Your task to perform on an android device: Do I have any events today? Image 0: 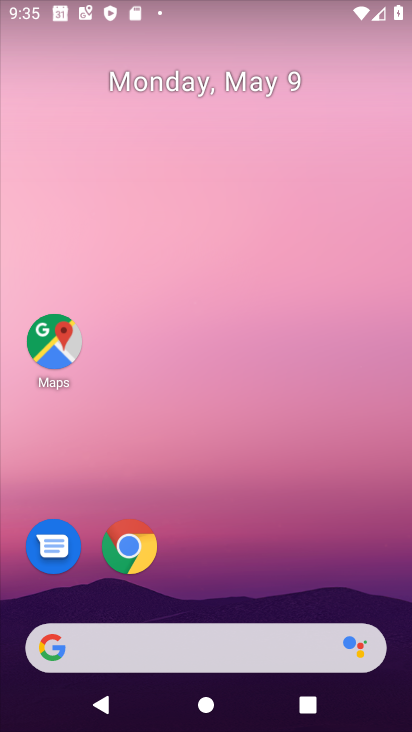
Step 0: drag from (260, 726) to (200, 19)
Your task to perform on an android device: Do I have any events today? Image 1: 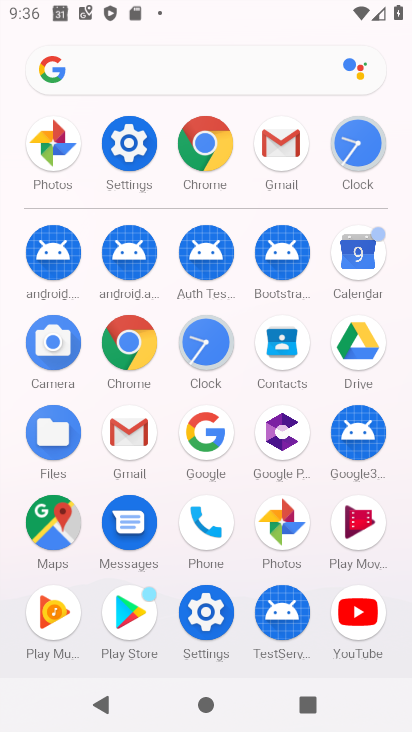
Step 1: click (355, 261)
Your task to perform on an android device: Do I have any events today? Image 2: 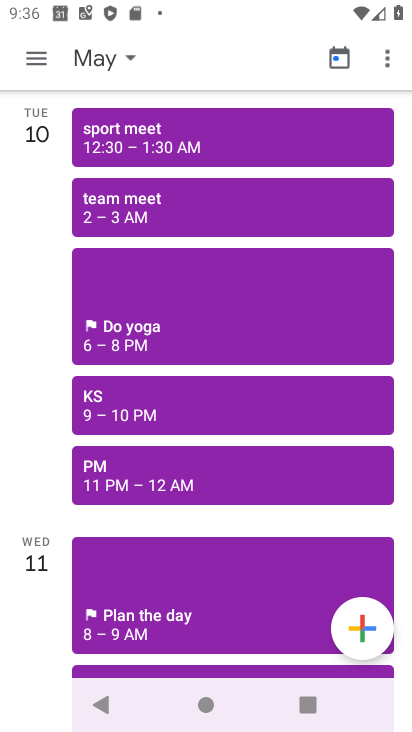
Step 2: task complete